Your task to perform on an android device: Show me the alarms in the clock app Image 0: 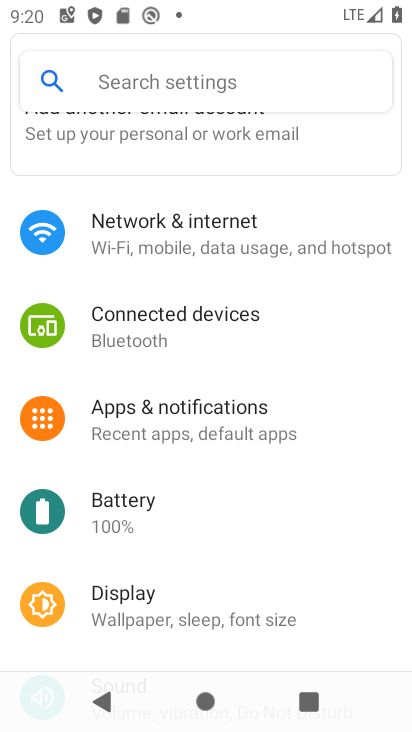
Step 0: press home button
Your task to perform on an android device: Show me the alarms in the clock app Image 1: 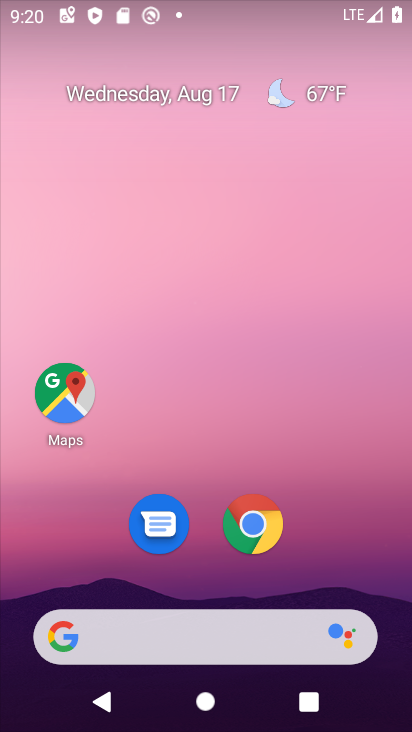
Step 1: drag from (328, 507) to (292, 17)
Your task to perform on an android device: Show me the alarms in the clock app Image 2: 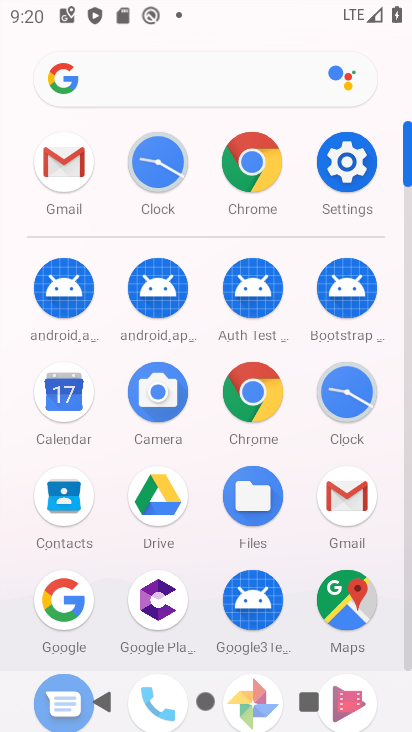
Step 2: click (162, 172)
Your task to perform on an android device: Show me the alarms in the clock app Image 3: 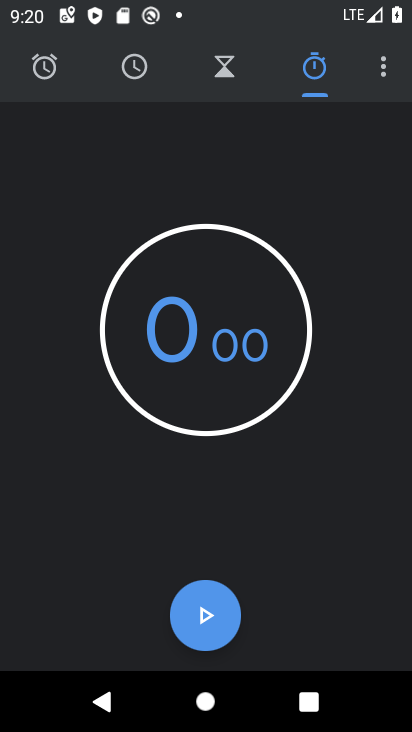
Step 3: click (46, 67)
Your task to perform on an android device: Show me the alarms in the clock app Image 4: 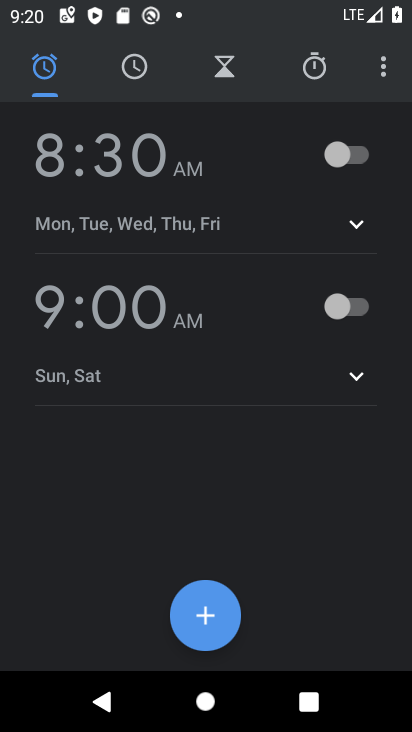
Step 4: task complete